Your task to perform on an android device: Open calendar and show me the third week of next month Image 0: 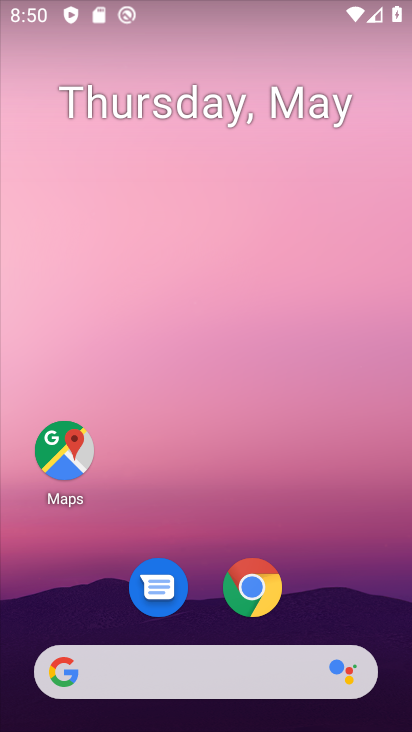
Step 0: drag from (314, 552) to (287, 59)
Your task to perform on an android device: Open calendar and show me the third week of next month Image 1: 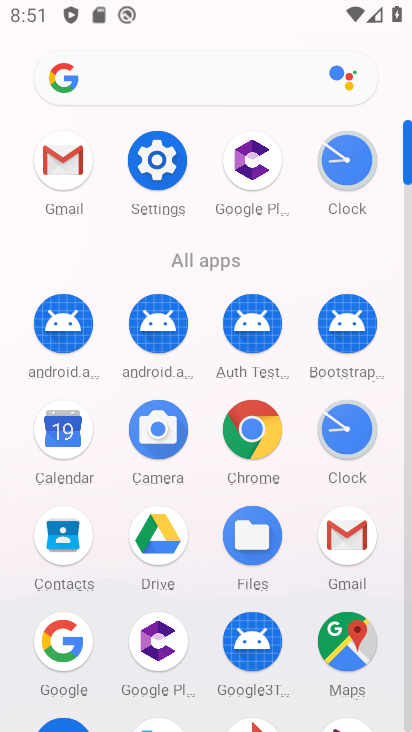
Step 1: click (53, 439)
Your task to perform on an android device: Open calendar and show me the third week of next month Image 2: 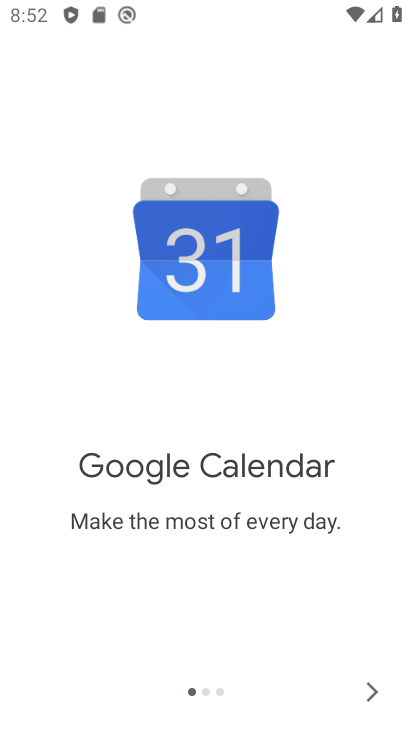
Step 2: click (379, 693)
Your task to perform on an android device: Open calendar and show me the third week of next month Image 3: 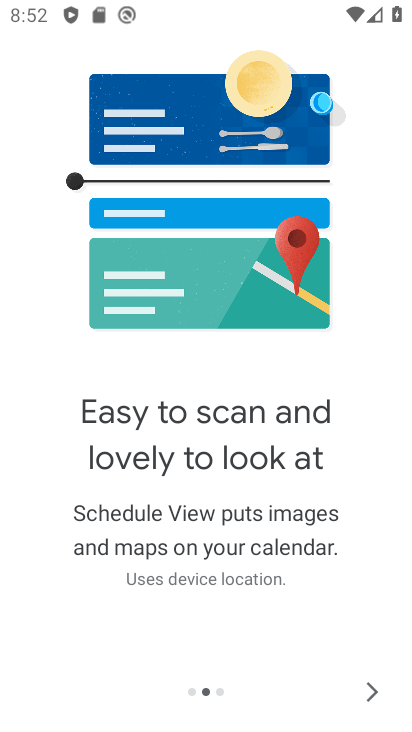
Step 3: click (381, 693)
Your task to perform on an android device: Open calendar and show me the third week of next month Image 4: 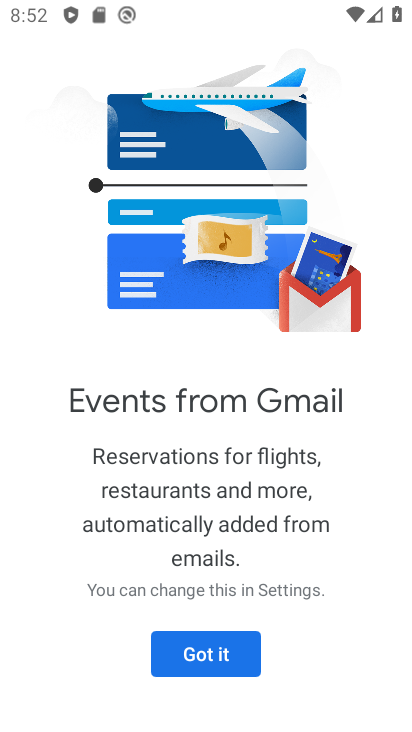
Step 4: click (234, 650)
Your task to perform on an android device: Open calendar and show me the third week of next month Image 5: 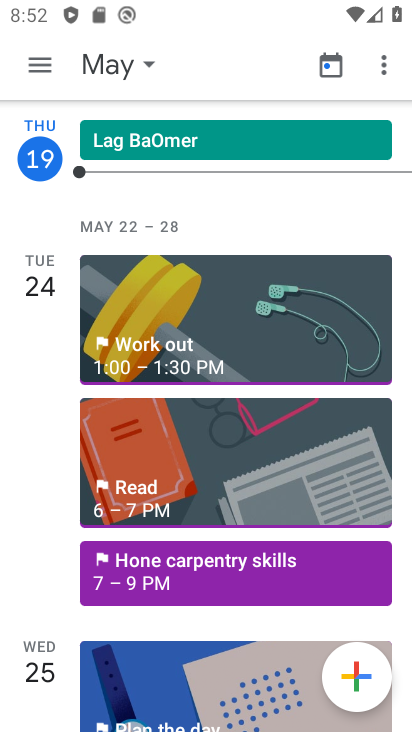
Step 5: click (115, 67)
Your task to perform on an android device: Open calendar and show me the third week of next month Image 6: 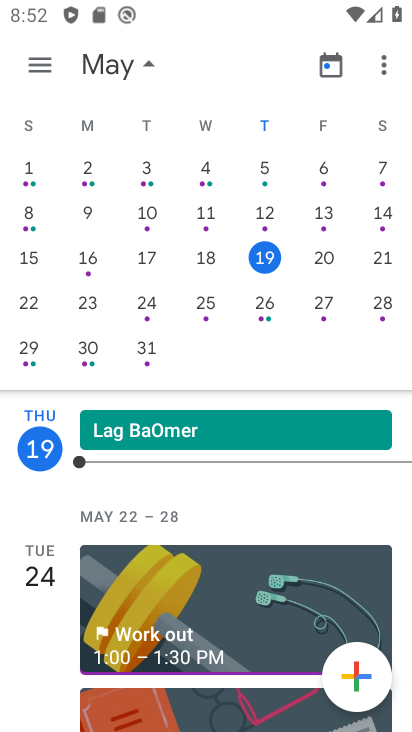
Step 6: drag from (333, 311) to (1, 315)
Your task to perform on an android device: Open calendar and show me the third week of next month Image 7: 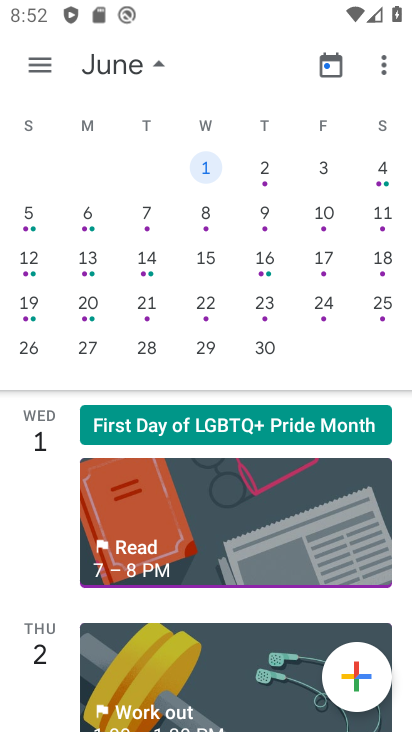
Step 7: click (147, 319)
Your task to perform on an android device: Open calendar and show me the third week of next month Image 8: 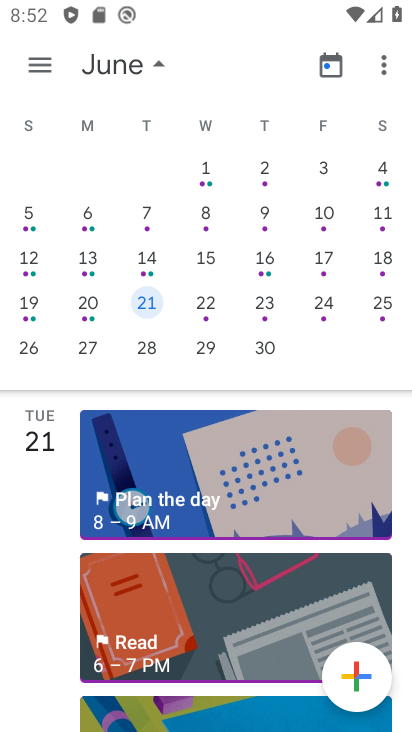
Step 8: task complete